Your task to perform on an android device: Open internet settings Image 0: 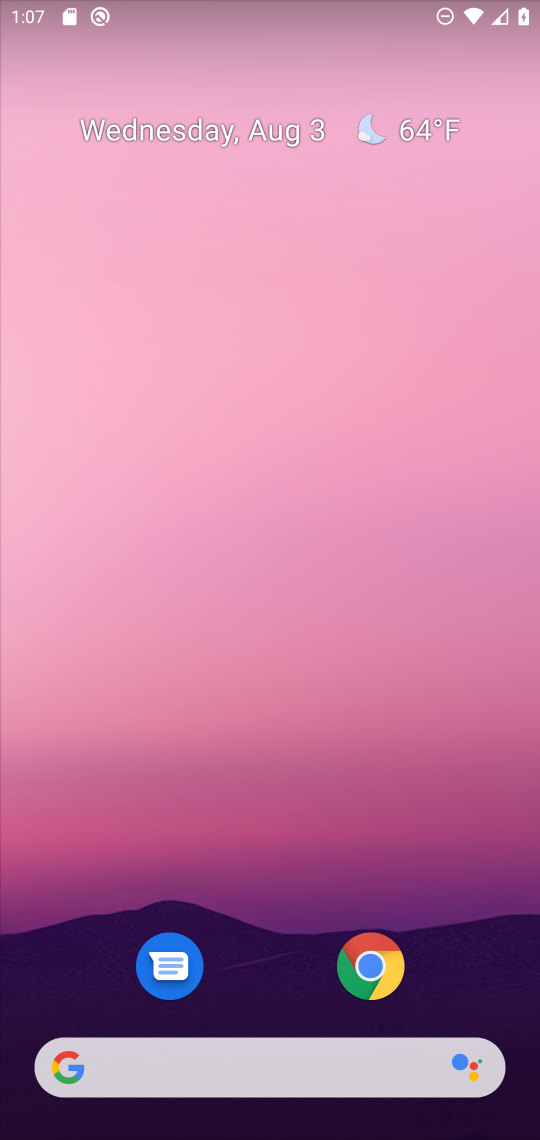
Step 0: drag from (261, 990) to (188, 269)
Your task to perform on an android device: Open internet settings Image 1: 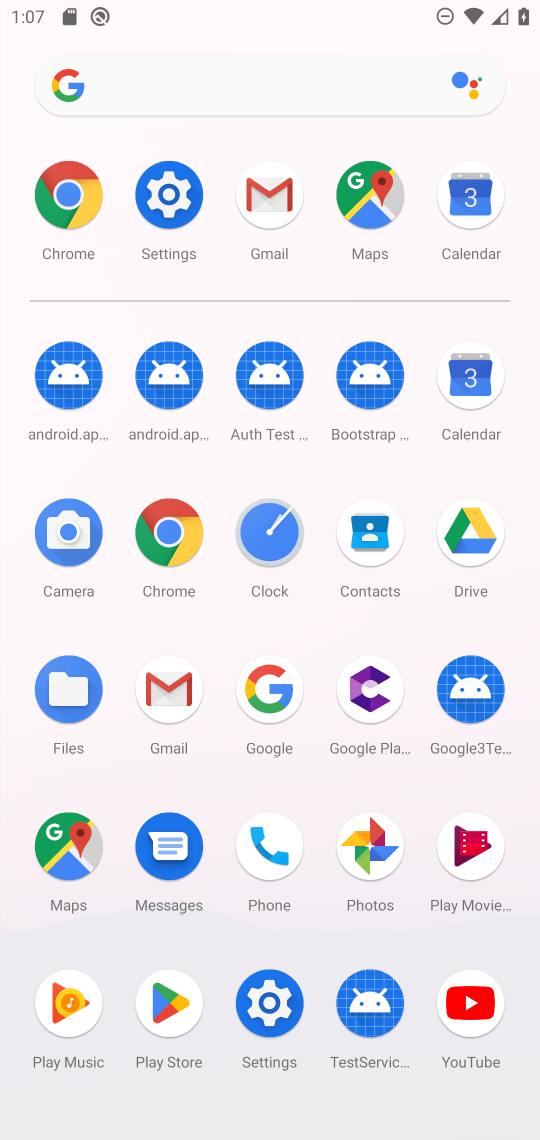
Step 1: click (164, 167)
Your task to perform on an android device: Open internet settings Image 2: 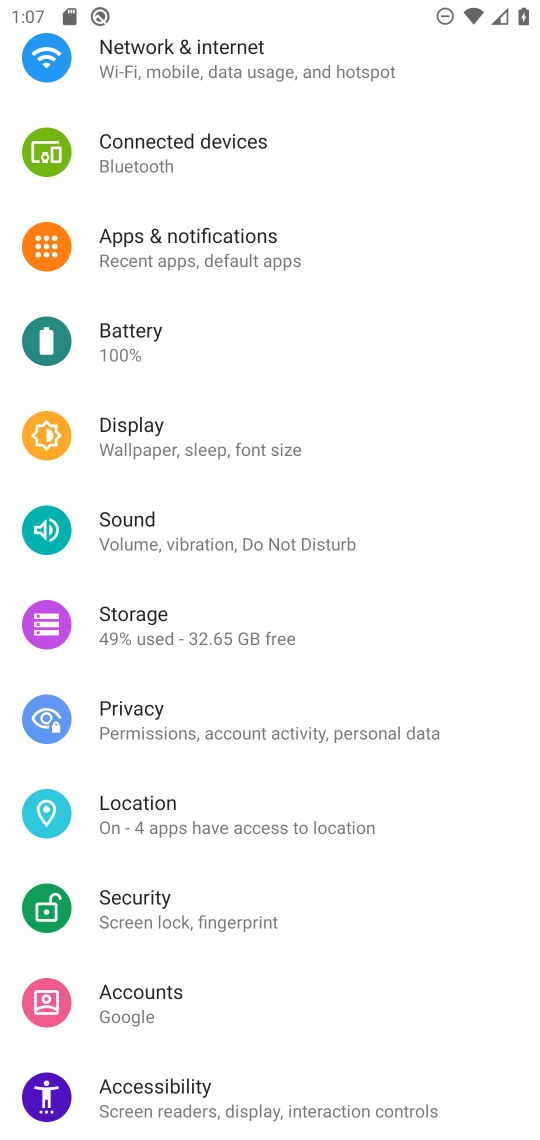
Step 2: task complete